Your task to perform on an android device: When is my next appointment? Image 0: 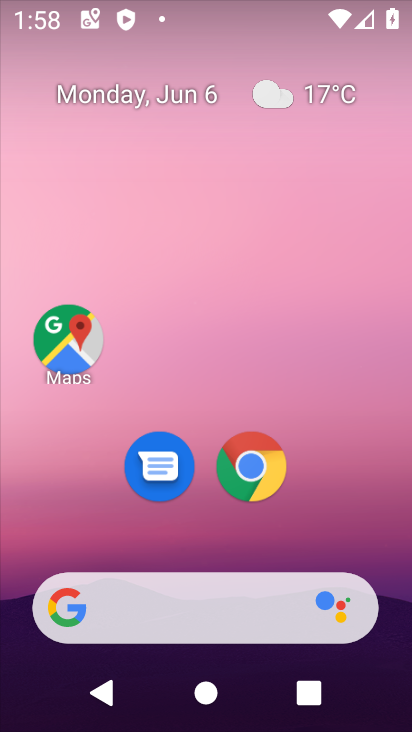
Step 0: drag from (350, 523) to (332, 173)
Your task to perform on an android device: When is my next appointment? Image 1: 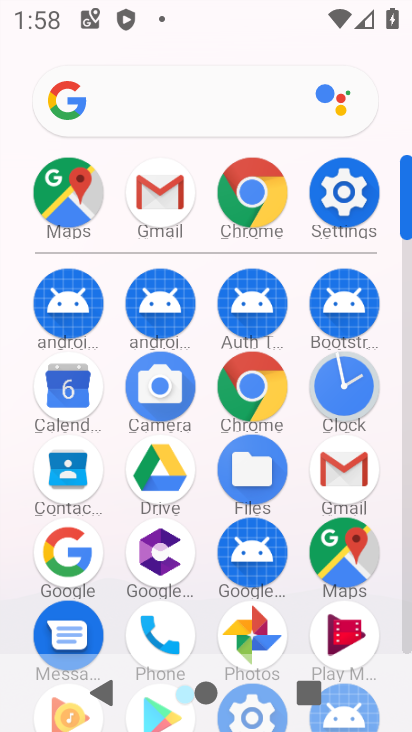
Step 1: click (56, 391)
Your task to perform on an android device: When is my next appointment? Image 2: 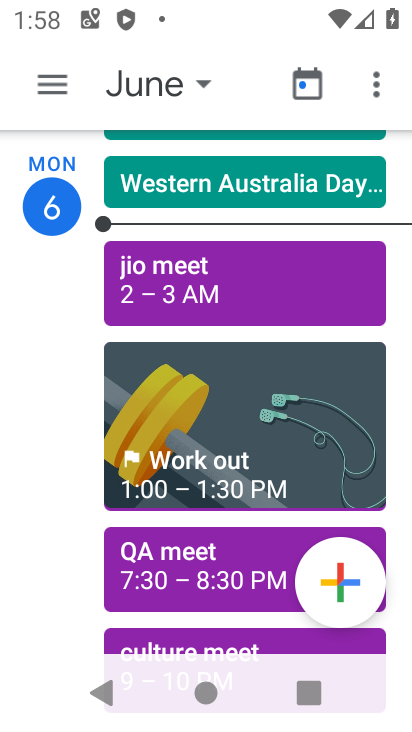
Step 2: click (65, 76)
Your task to perform on an android device: When is my next appointment? Image 3: 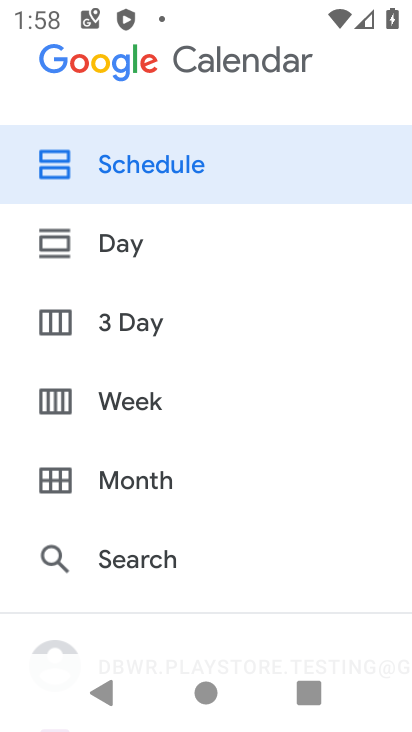
Step 3: click (115, 156)
Your task to perform on an android device: When is my next appointment? Image 4: 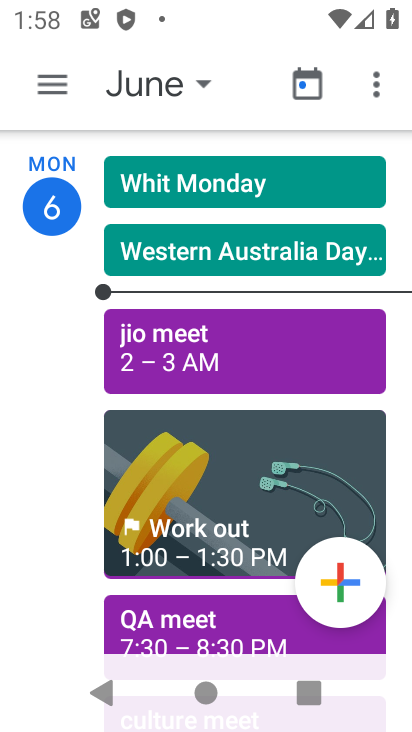
Step 4: task complete